Your task to perform on an android device: Search for Italian restaurants on Maps Image 0: 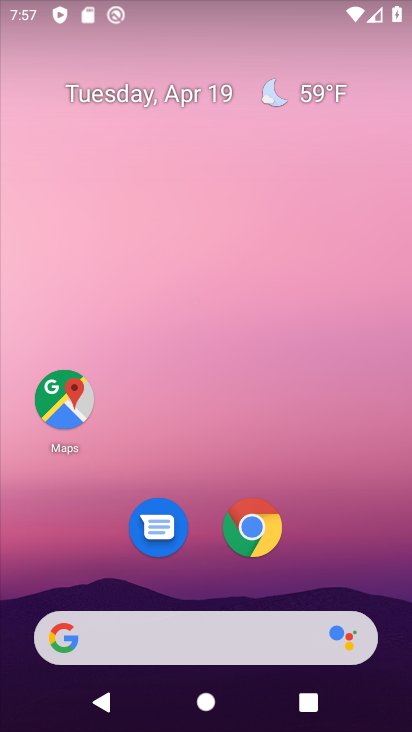
Step 0: click (69, 395)
Your task to perform on an android device: Search for Italian restaurants on Maps Image 1: 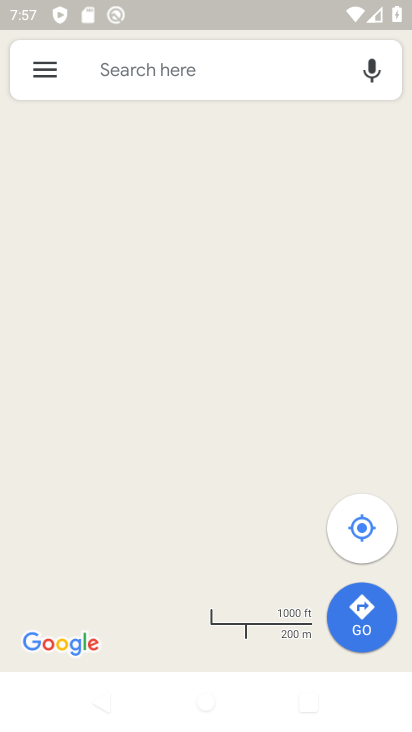
Step 1: click (181, 49)
Your task to perform on an android device: Search for Italian restaurants on Maps Image 2: 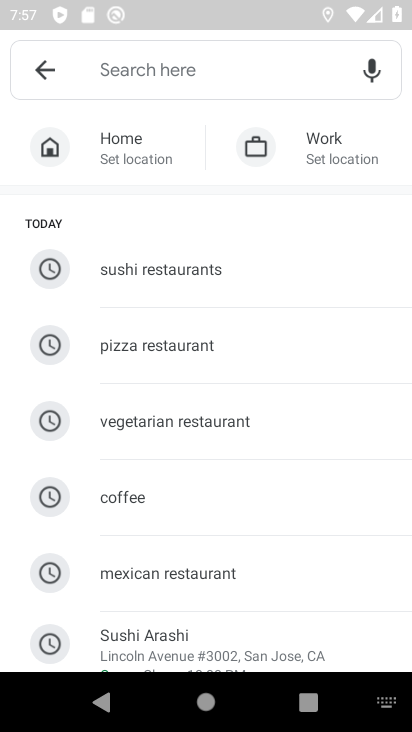
Step 2: type "Italian restaurants"
Your task to perform on an android device: Search for Italian restaurants on Maps Image 3: 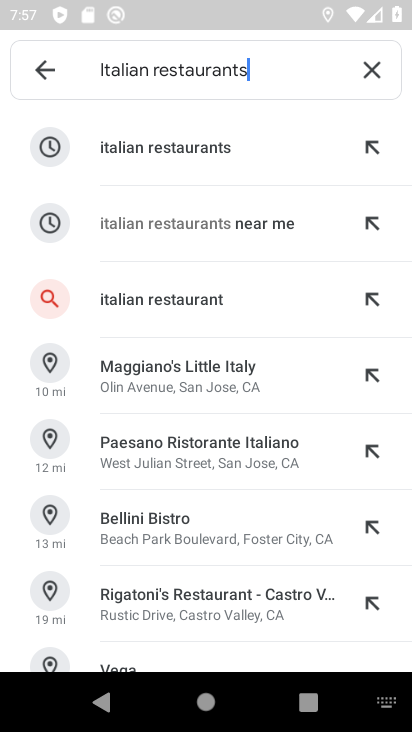
Step 3: click (211, 149)
Your task to perform on an android device: Search for Italian restaurants on Maps Image 4: 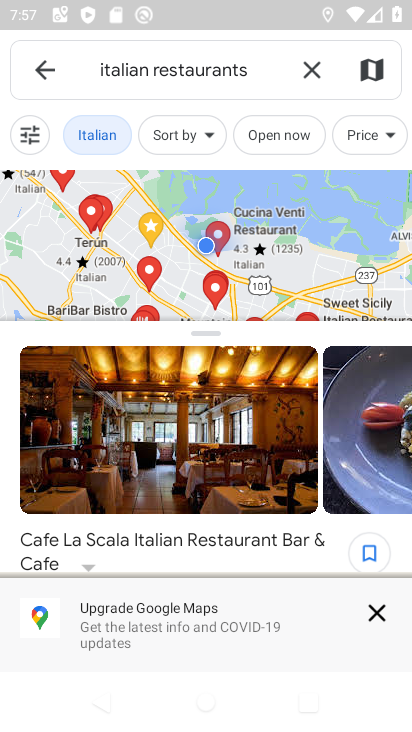
Step 4: task complete